Your task to perform on an android device: turn off picture-in-picture Image 0: 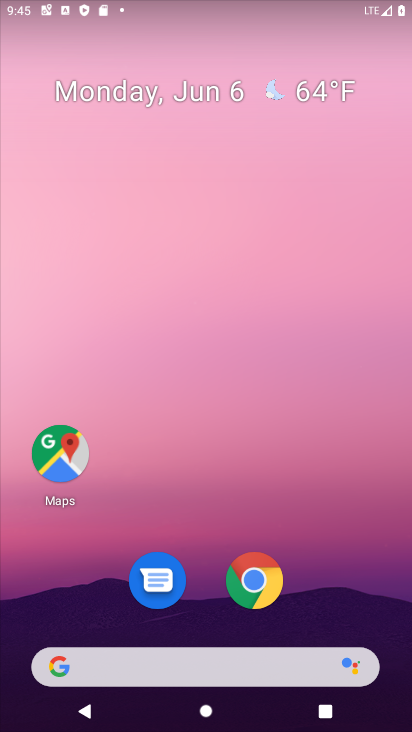
Step 0: drag from (316, 611) to (325, 65)
Your task to perform on an android device: turn off picture-in-picture Image 1: 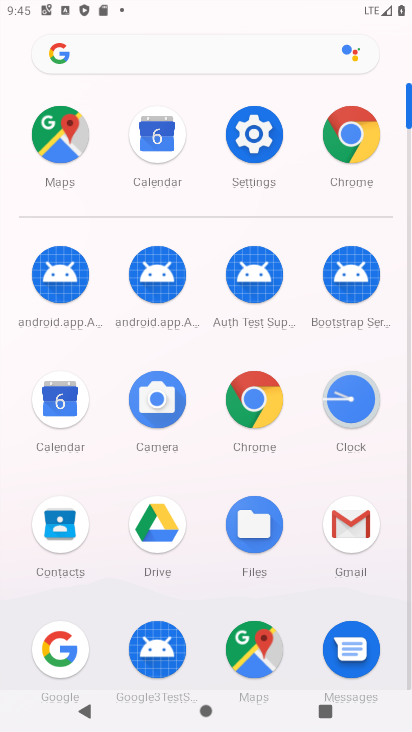
Step 1: click (329, 129)
Your task to perform on an android device: turn off picture-in-picture Image 2: 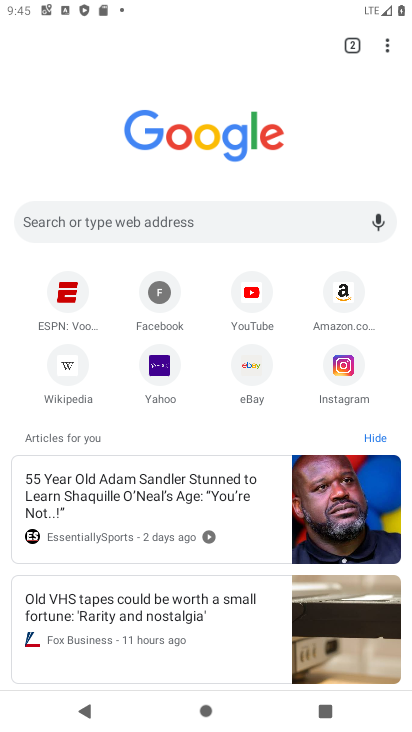
Step 2: press home button
Your task to perform on an android device: turn off picture-in-picture Image 3: 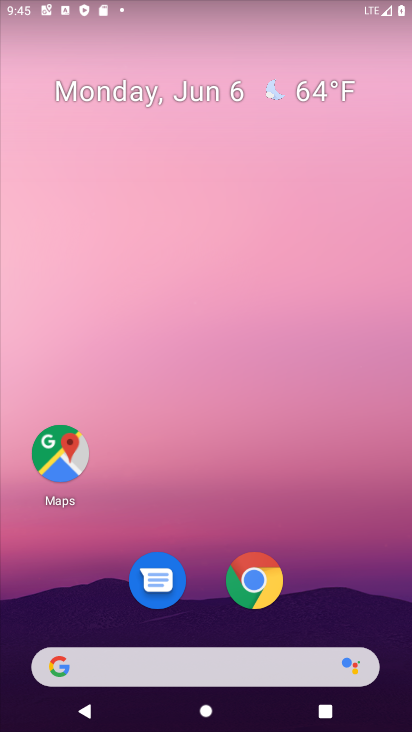
Step 3: drag from (350, 590) to (357, 18)
Your task to perform on an android device: turn off picture-in-picture Image 4: 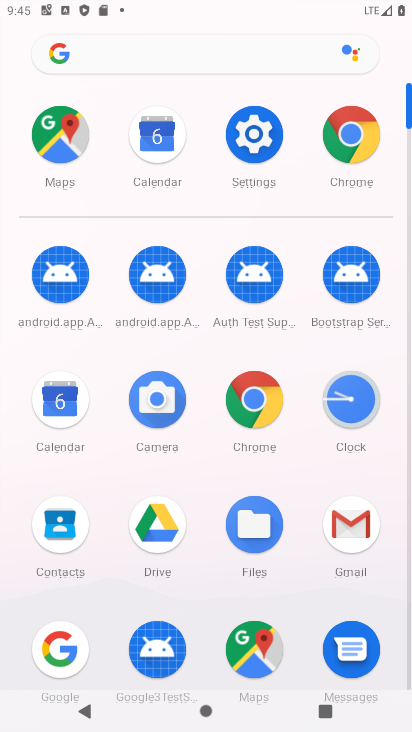
Step 4: click (357, 116)
Your task to perform on an android device: turn off picture-in-picture Image 5: 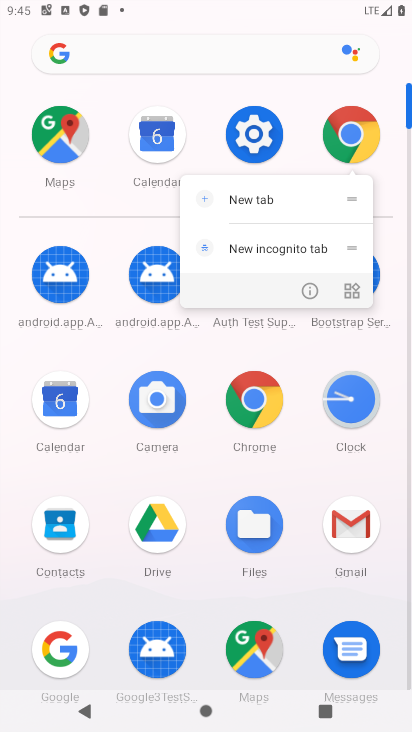
Step 5: click (316, 288)
Your task to perform on an android device: turn off picture-in-picture Image 6: 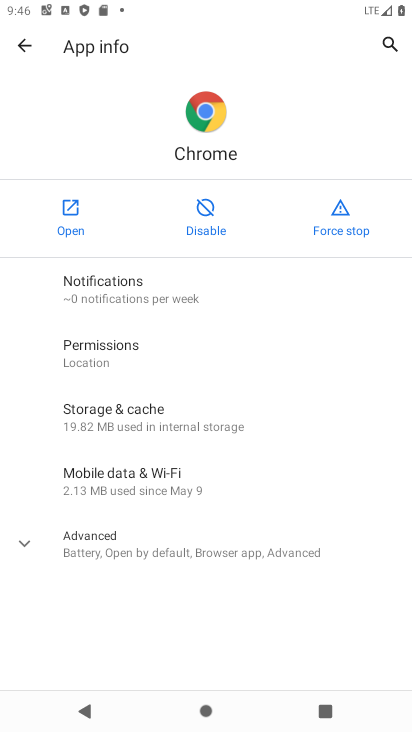
Step 6: click (97, 559)
Your task to perform on an android device: turn off picture-in-picture Image 7: 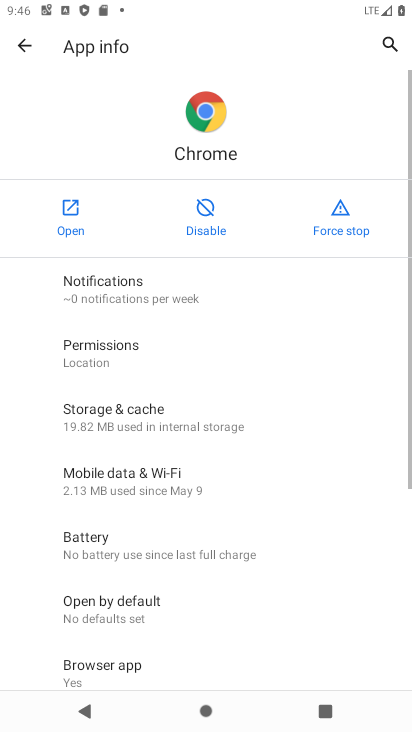
Step 7: drag from (149, 656) to (238, 147)
Your task to perform on an android device: turn off picture-in-picture Image 8: 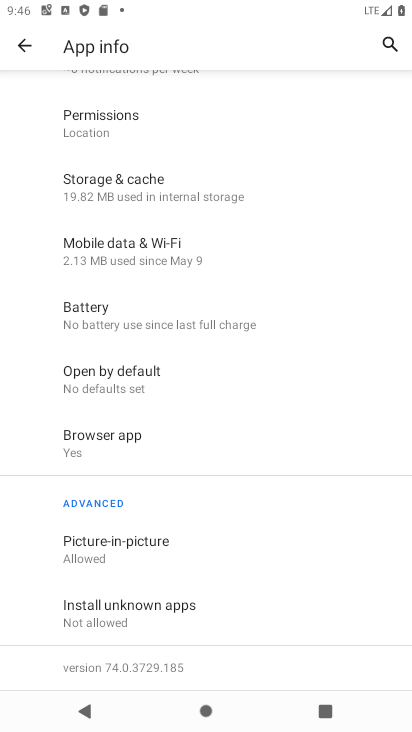
Step 8: drag from (206, 566) to (281, 51)
Your task to perform on an android device: turn off picture-in-picture Image 9: 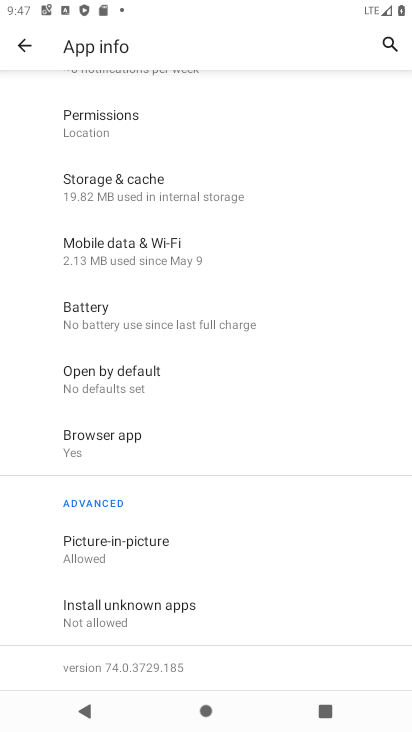
Step 9: click (106, 550)
Your task to perform on an android device: turn off picture-in-picture Image 10: 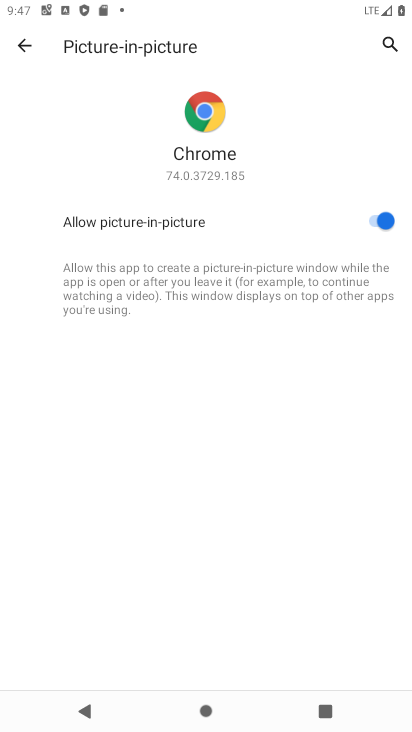
Step 10: click (369, 226)
Your task to perform on an android device: turn off picture-in-picture Image 11: 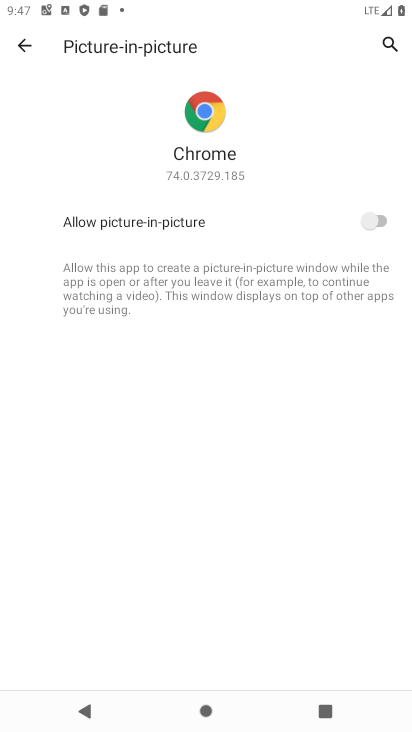
Step 11: task complete